Your task to perform on an android device: Go to Android settings Image 0: 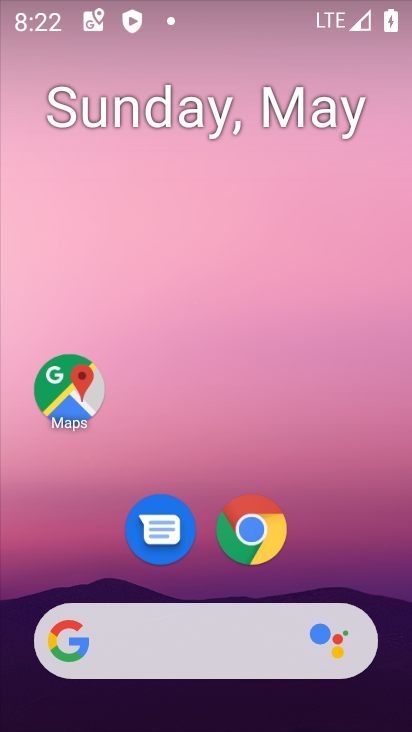
Step 0: drag from (193, 588) to (237, 86)
Your task to perform on an android device: Go to Android settings Image 1: 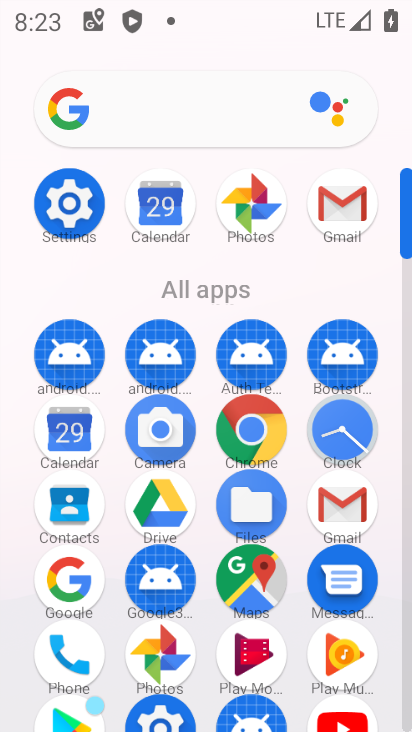
Step 1: click (78, 208)
Your task to perform on an android device: Go to Android settings Image 2: 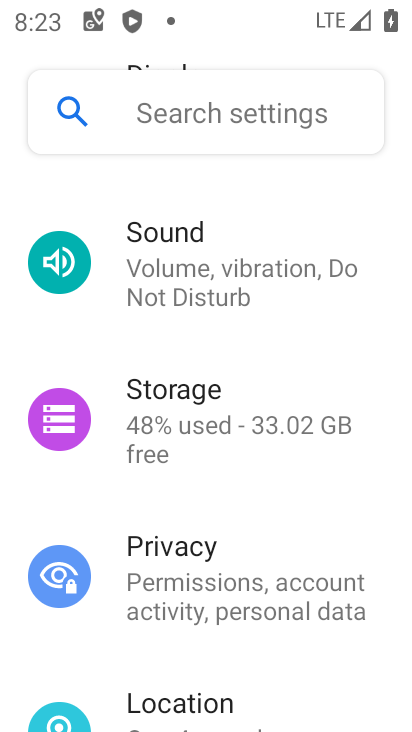
Step 2: drag from (178, 669) to (262, 44)
Your task to perform on an android device: Go to Android settings Image 3: 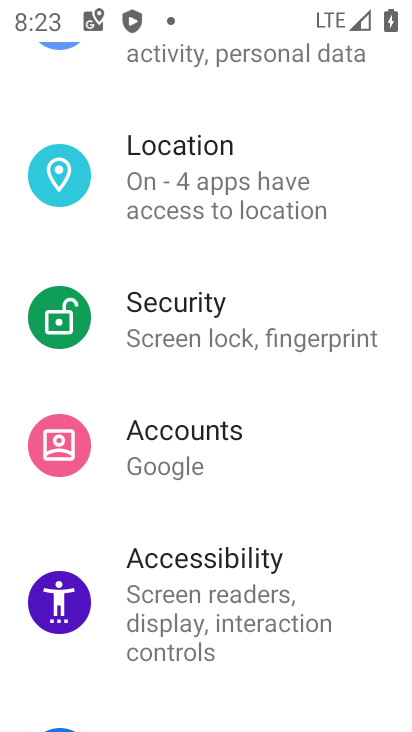
Step 3: drag from (188, 690) to (231, 110)
Your task to perform on an android device: Go to Android settings Image 4: 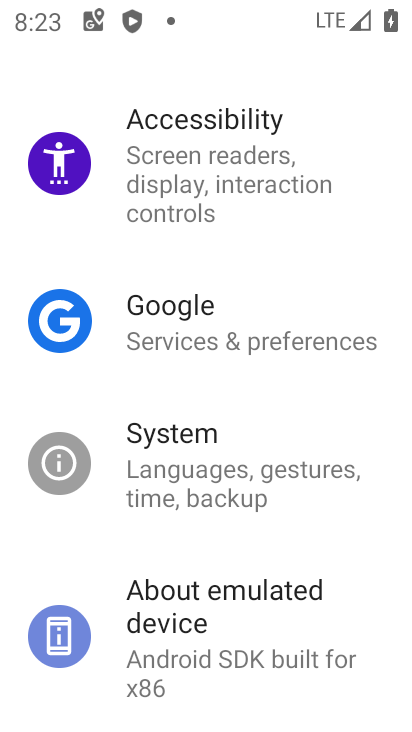
Step 4: drag from (176, 670) to (227, 132)
Your task to perform on an android device: Go to Android settings Image 5: 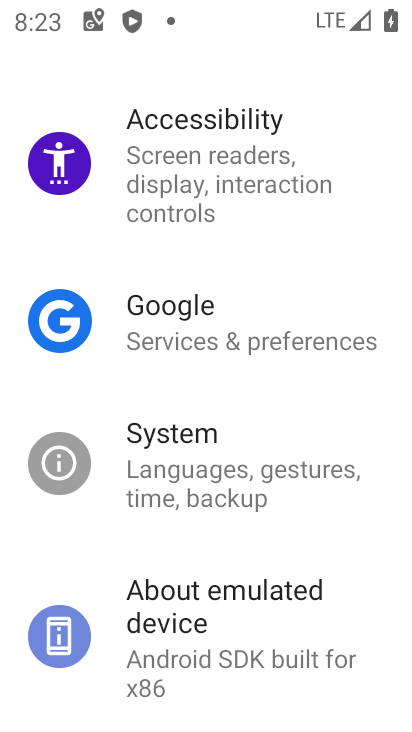
Step 5: click (182, 624)
Your task to perform on an android device: Go to Android settings Image 6: 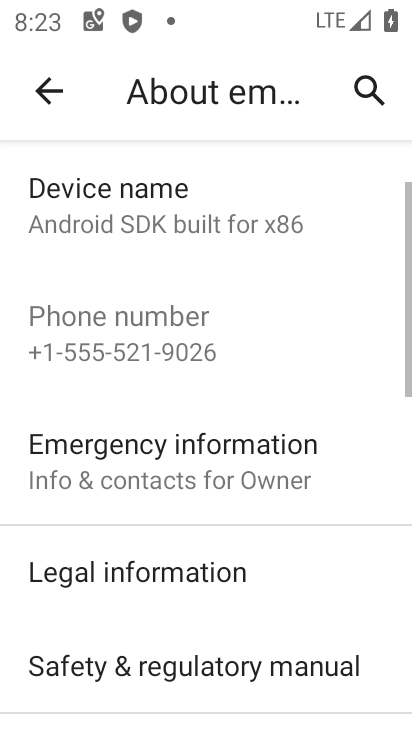
Step 6: task complete